Your task to perform on an android device: delete the emails in spam in the gmail app Image 0: 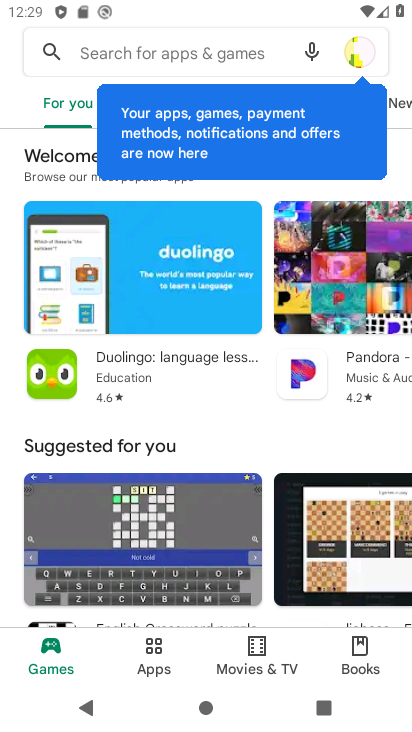
Step 0: press back button
Your task to perform on an android device: delete the emails in spam in the gmail app Image 1: 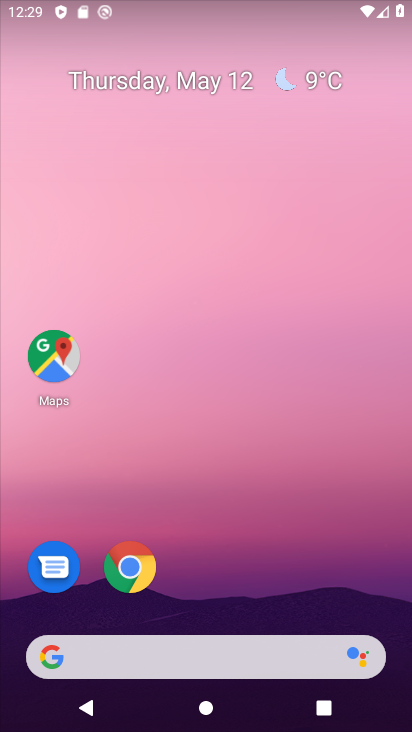
Step 1: drag from (168, 620) to (286, 117)
Your task to perform on an android device: delete the emails in spam in the gmail app Image 2: 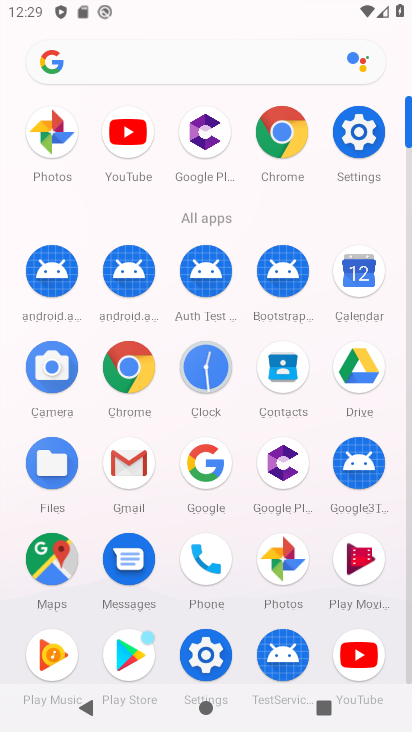
Step 2: click (148, 468)
Your task to perform on an android device: delete the emails in spam in the gmail app Image 3: 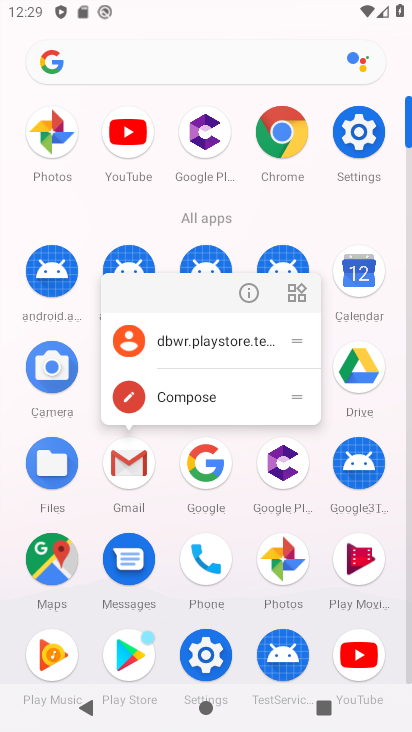
Step 3: click (116, 455)
Your task to perform on an android device: delete the emails in spam in the gmail app Image 4: 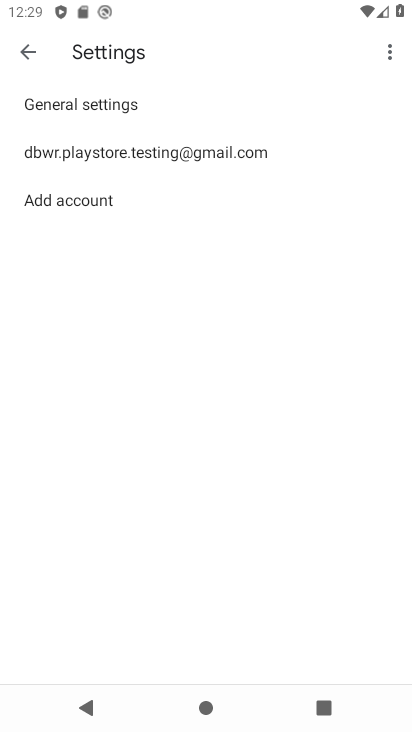
Step 4: press back button
Your task to perform on an android device: delete the emails in spam in the gmail app Image 5: 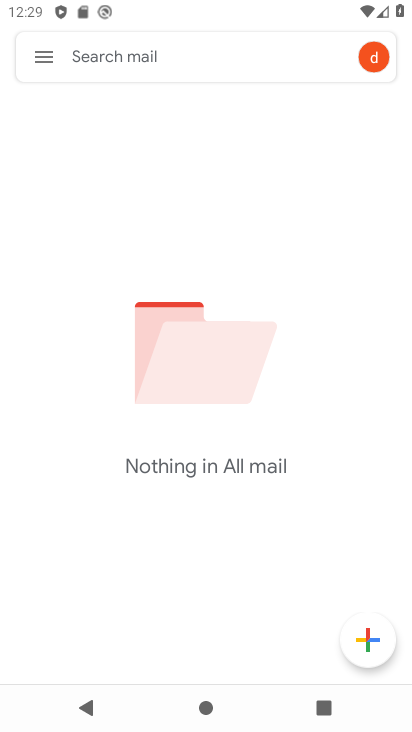
Step 5: click (52, 58)
Your task to perform on an android device: delete the emails in spam in the gmail app Image 6: 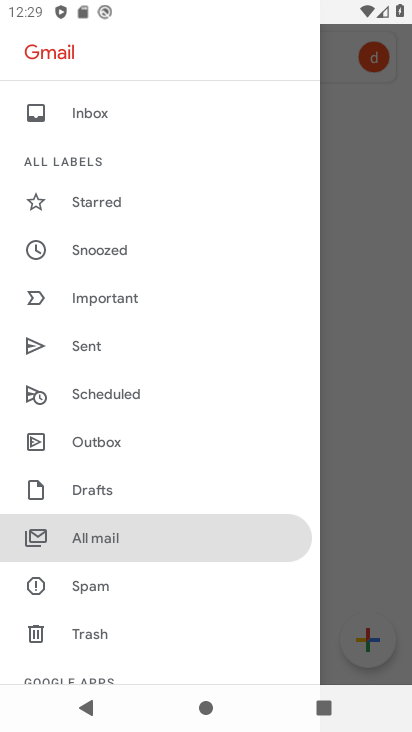
Step 6: click (122, 593)
Your task to perform on an android device: delete the emails in spam in the gmail app Image 7: 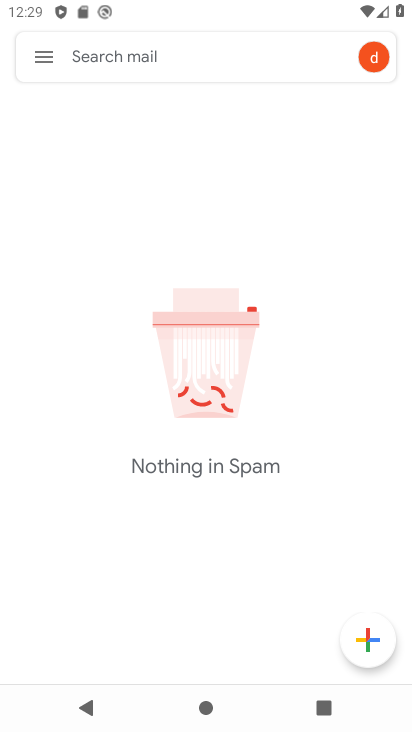
Step 7: task complete